Your task to perform on an android device: Open wifi settings Image 0: 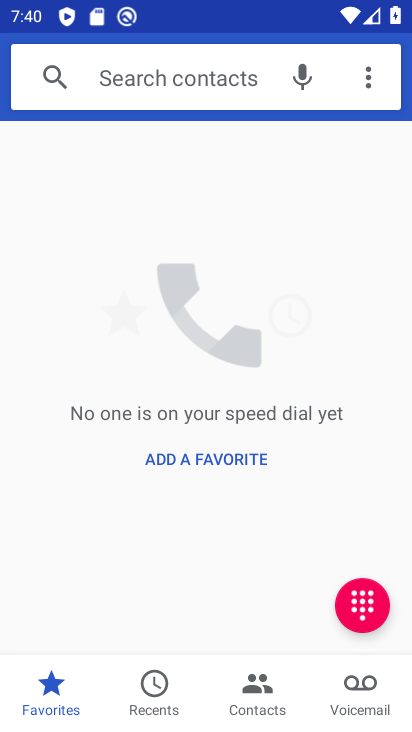
Step 0: drag from (328, 590) to (311, 353)
Your task to perform on an android device: Open wifi settings Image 1: 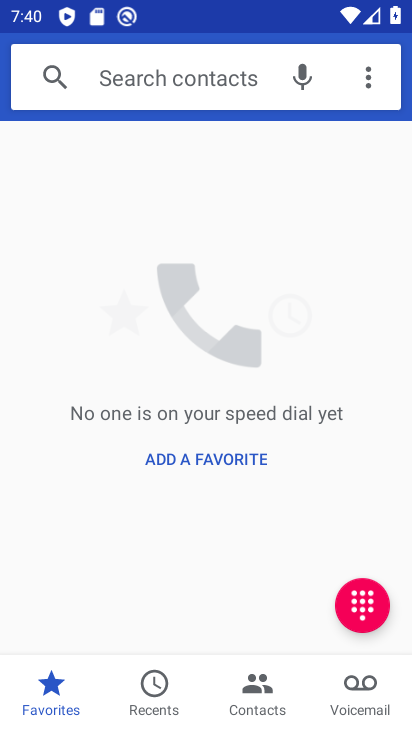
Step 1: press home button
Your task to perform on an android device: Open wifi settings Image 2: 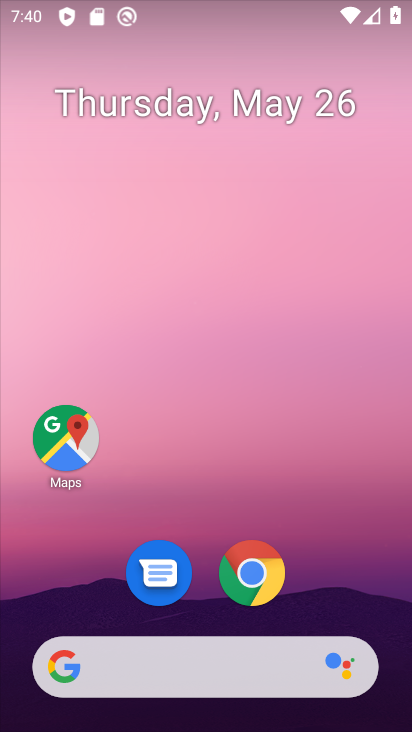
Step 2: drag from (300, 575) to (301, 152)
Your task to perform on an android device: Open wifi settings Image 3: 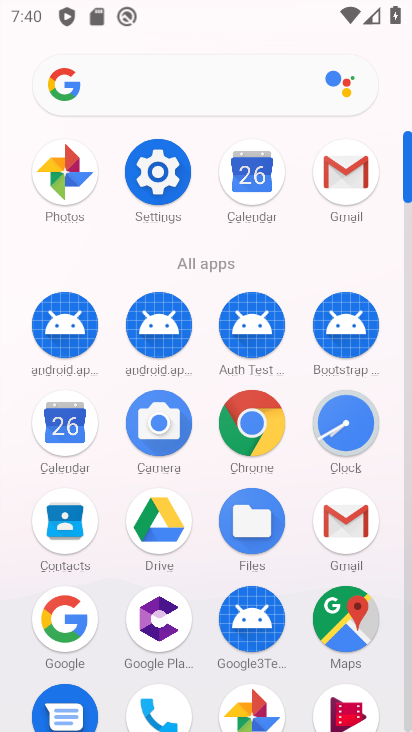
Step 3: drag from (291, 603) to (353, 158)
Your task to perform on an android device: Open wifi settings Image 4: 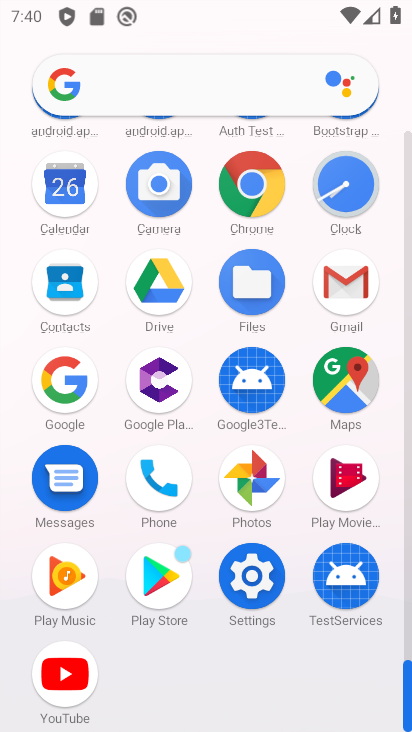
Step 4: click (254, 581)
Your task to perform on an android device: Open wifi settings Image 5: 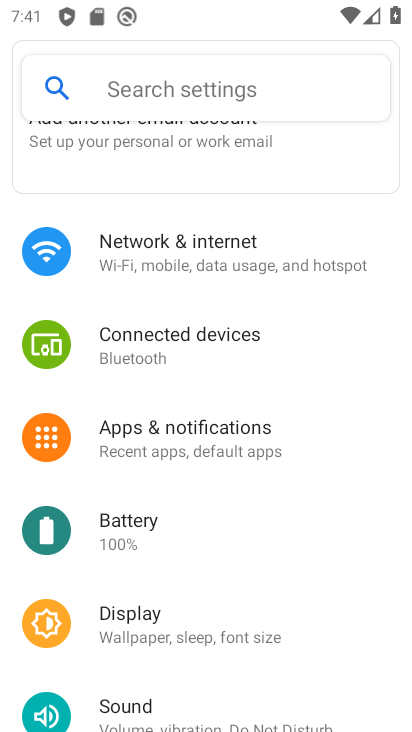
Step 5: click (214, 252)
Your task to perform on an android device: Open wifi settings Image 6: 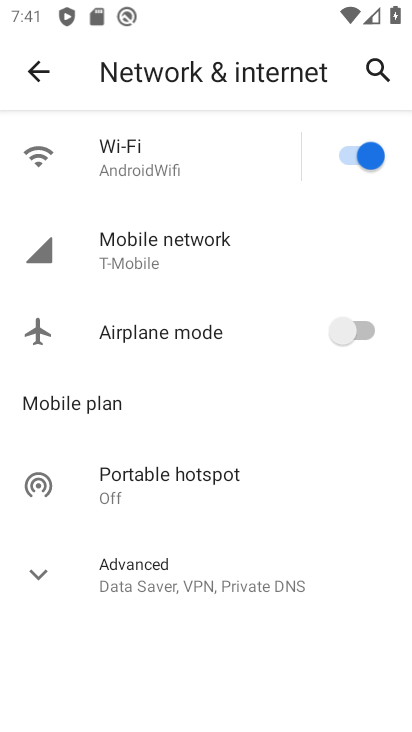
Step 6: click (208, 165)
Your task to perform on an android device: Open wifi settings Image 7: 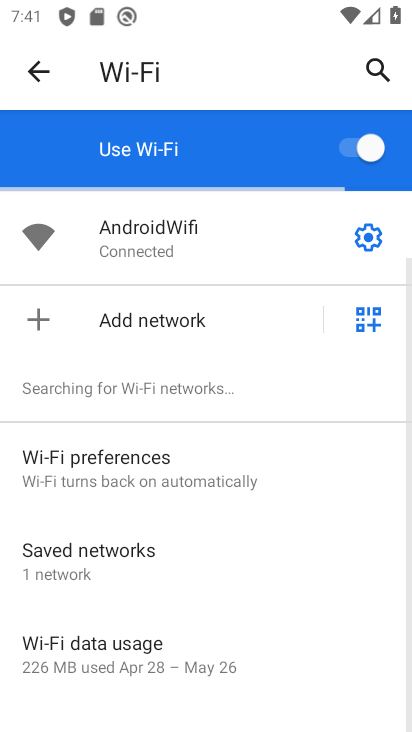
Step 7: click (362, 244)
Your task to perform on an android device: Open wifi settings Image 8: 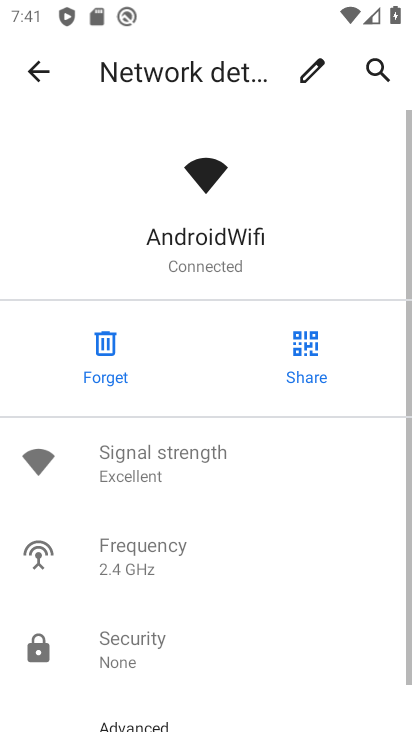
Step 8: task complete